Your task to perform on an android device: Where can I buy a nice beach cooler? Image 0: 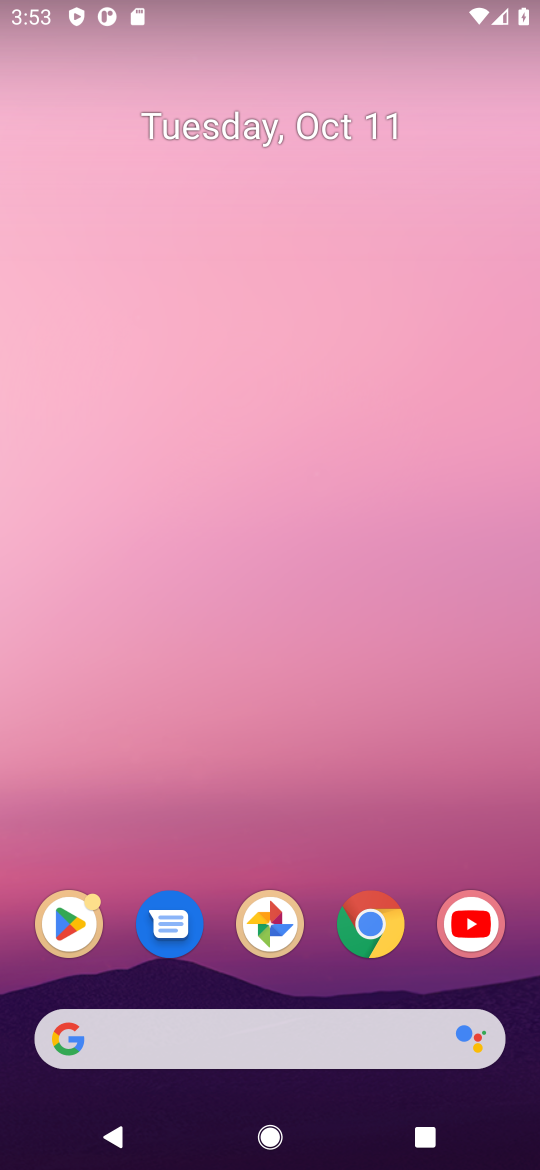
Step 0: drag from (323, 963) to (349, 56)
Your task to perform on an android device: Where can I buy a nice beach cooler? Image 1: 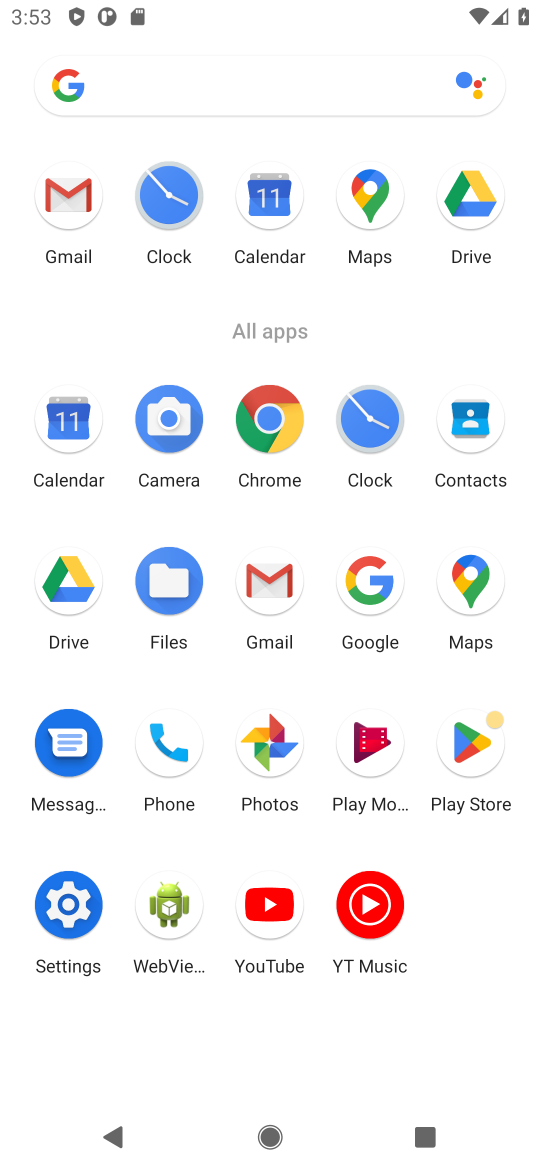
Step 1: click (268, 403)
Your task to perform on an android device: Where can I buy a nice beach cooler? Image 2: 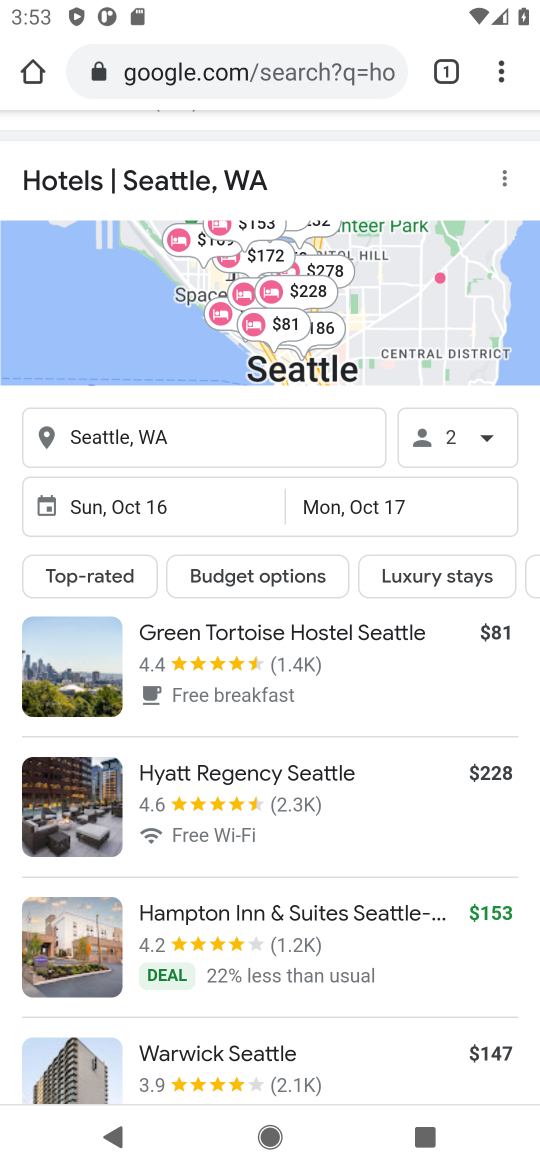
Step 2: click (314, 67)
Your task to perform on an android device: Where can I buy a nice beach cooler? Image 3: 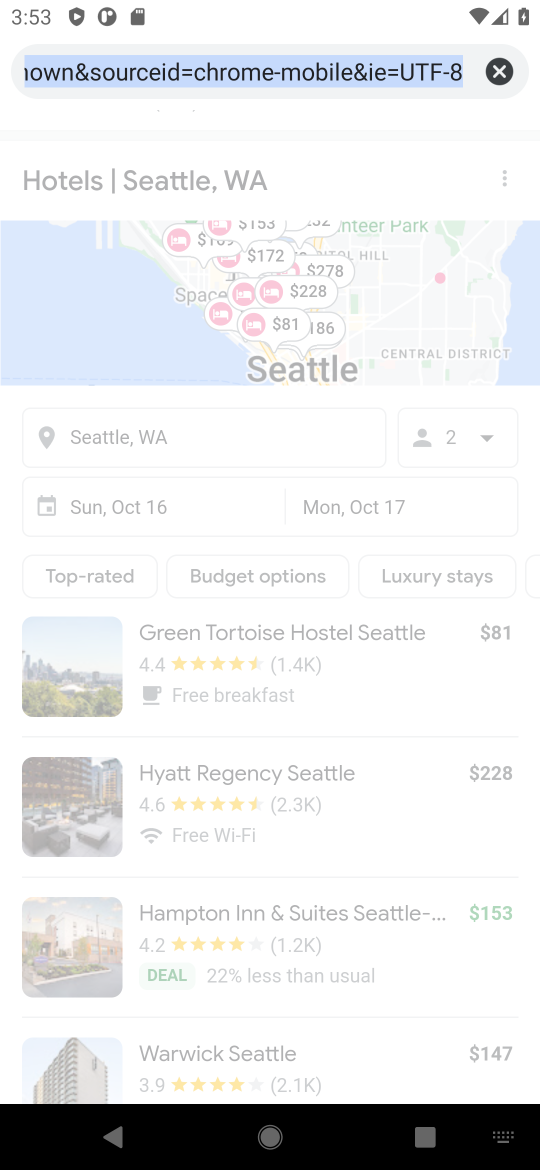
Step 3: type "Where can I buy a nice beach cooler?"
Your task to perform on an android device: Where can I buy a nice beach cooler? Image 4: 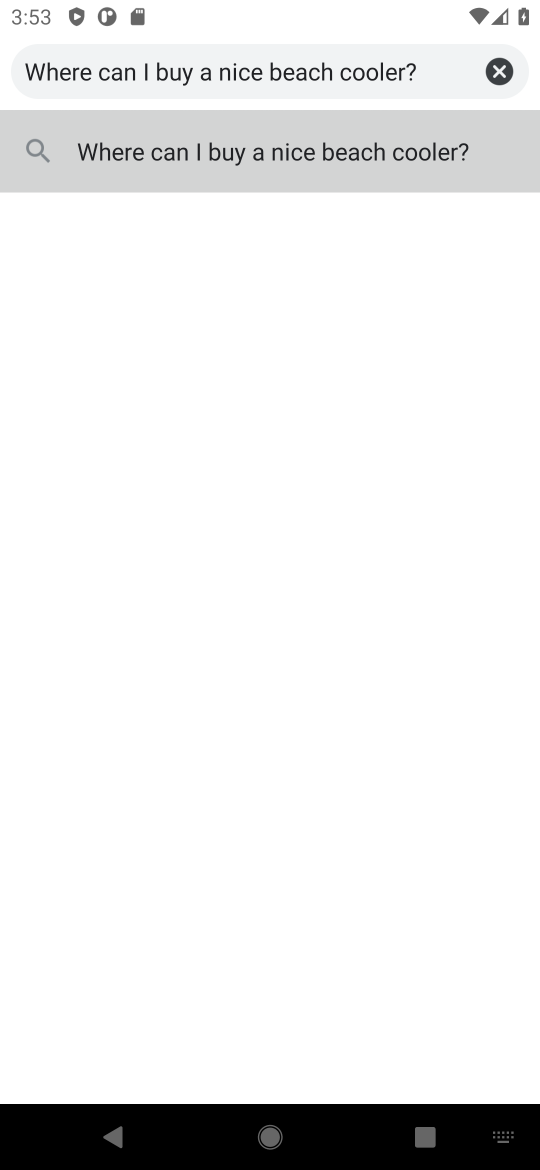
Step 4: press enter
Your task to perform on an android device: Where can I buy a nice beach cooler? Image 5: 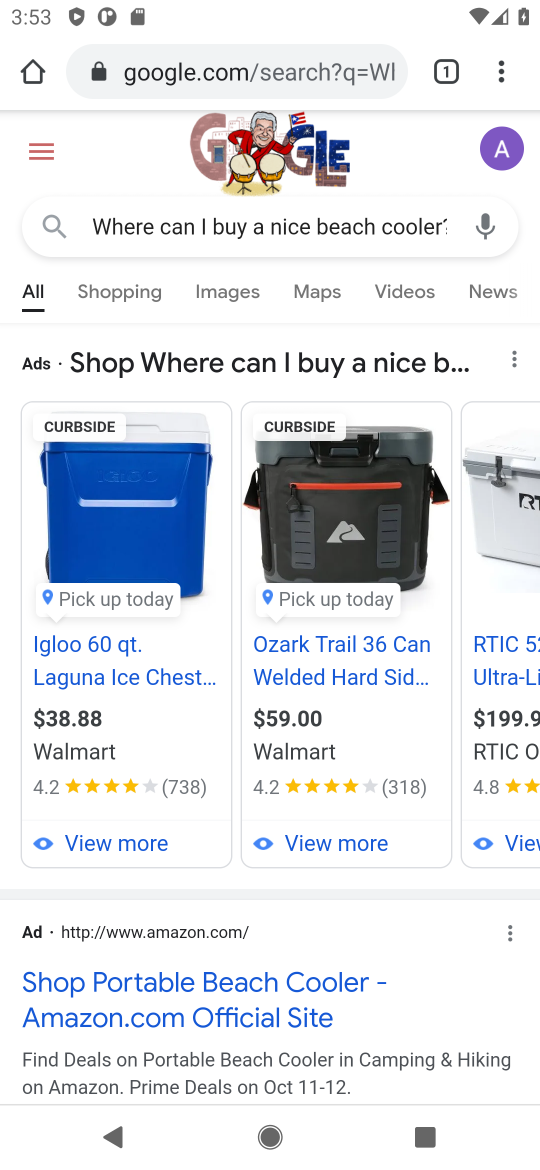
Step 5: task complete